Your task to perform on an android device: Open location settings Image 0: 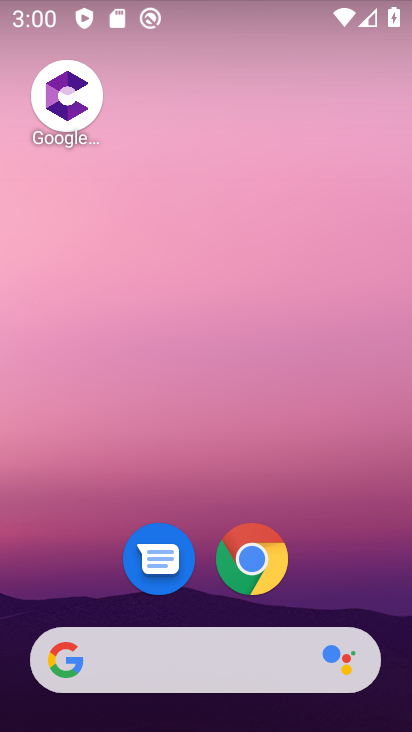
Step 0: drag from (320, 541) to (214, 13)
Your task to perform on an android device: Open location settings Image 1: 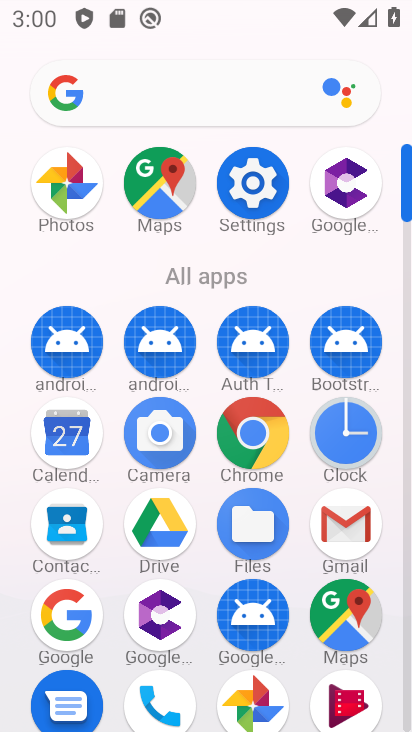
Step 1: click (243, 184)
Your task to perform on an android device: Open location settings Image 2: 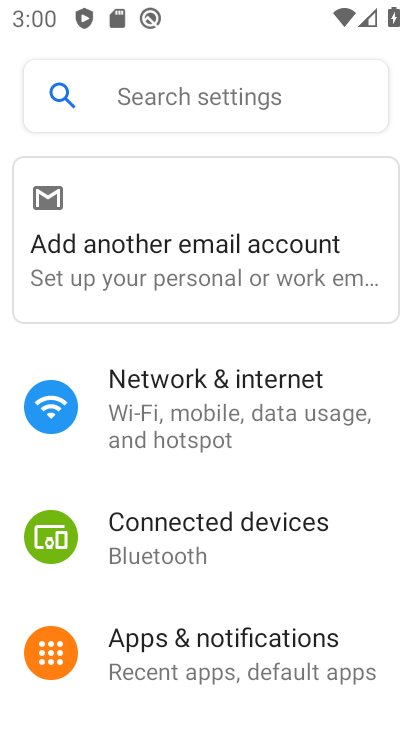
Step 2: drag from (225, 705) to (240, 282)
Your task to perform on an android device: Open location settings Image 3: 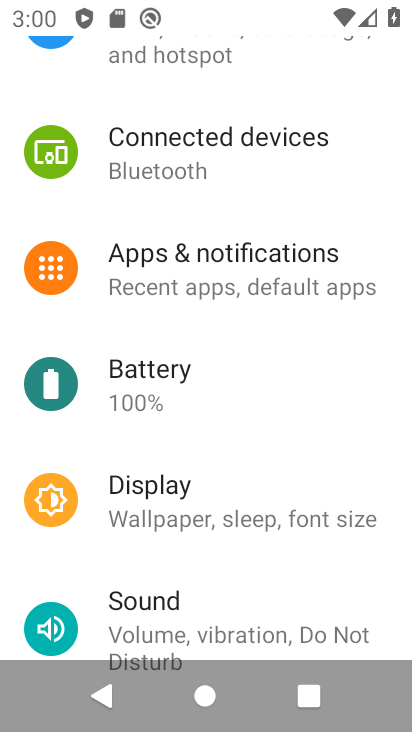
Step 3: drag from (230, 596) to (217, 175)
Your task to perform on an android device: Open location settings Image 4: 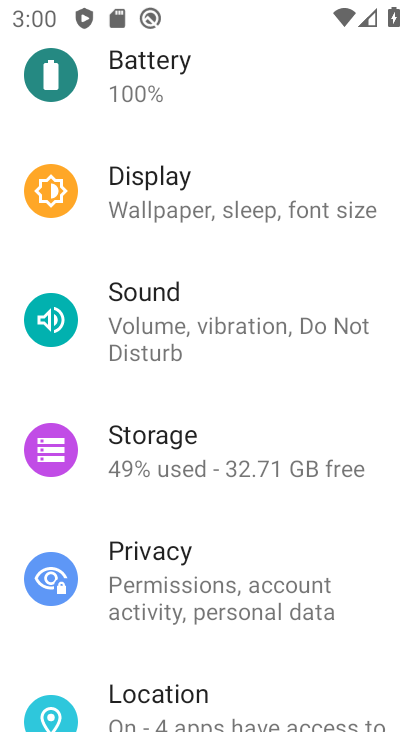
Step 4: click (156, 683)
Your task to perform on an android device: Open location settings Image 5: 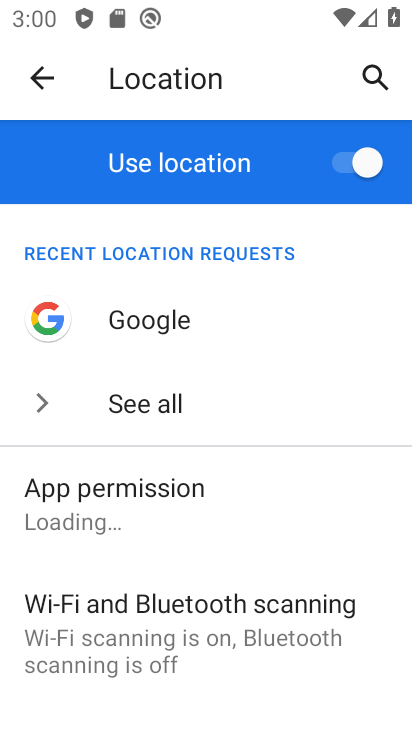
Step 5: drag from (198, 498) to (129, 6)
Your task to perform on an android device: Open location settings Image 6: 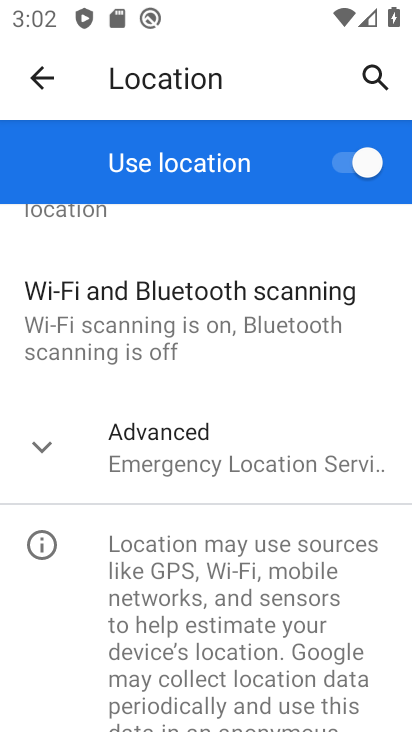
Step 6: click (199, 428)
Your task to perform on an android device: Open location settings Image 7: 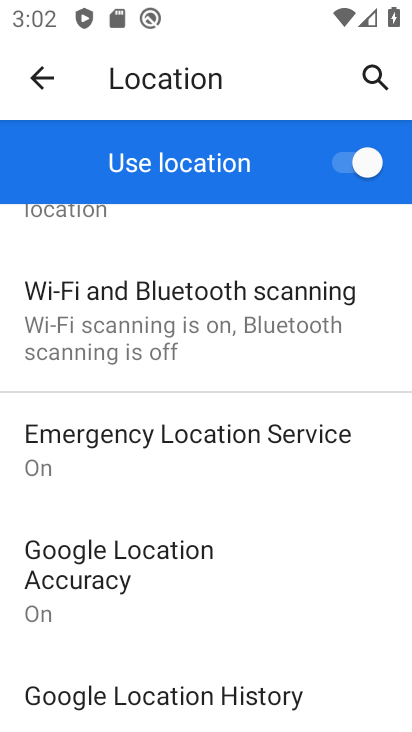
Step 7: task complete